Your task to perform on an android device: check android version Image 0: 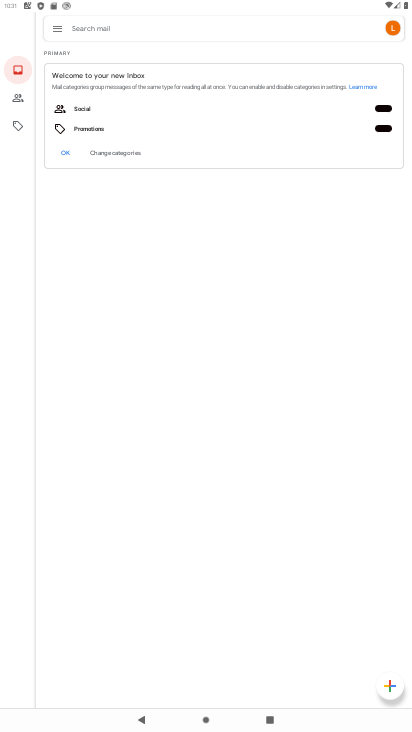
Step 0: press home button
Your task to perform on an android device: check android version Image 1: 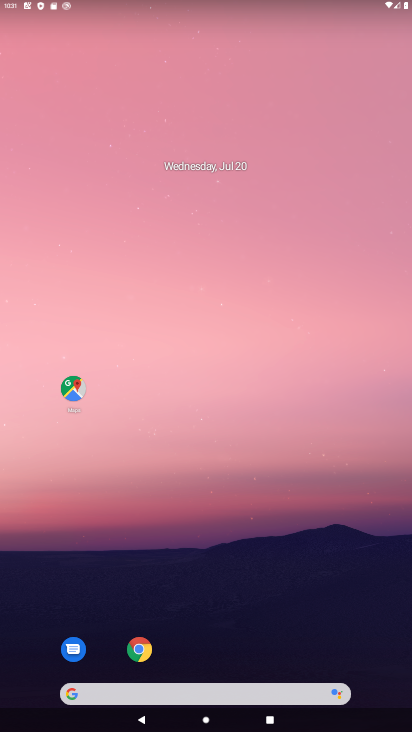
Step 1: drag from (250, 666) to (250, 128)
Your task to perform on an android device: check android version Image 2: 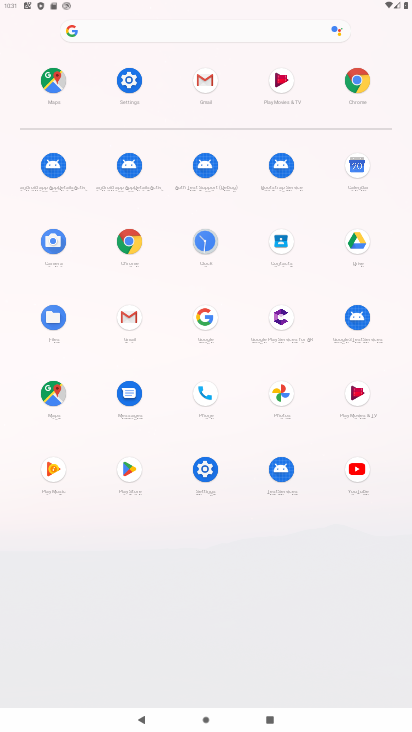
Step 2: click (130, 106)
Your task to perform on an android device: check android version Image 3: 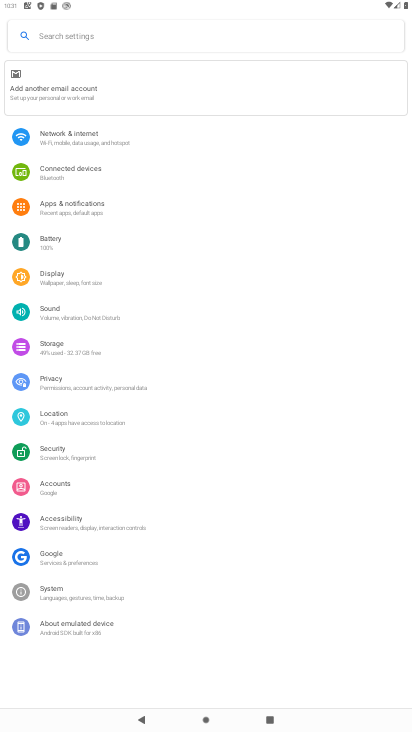
Step 3: task complete